Your task to perform on an android device: move an email to a new category in the gmail app Image 0: 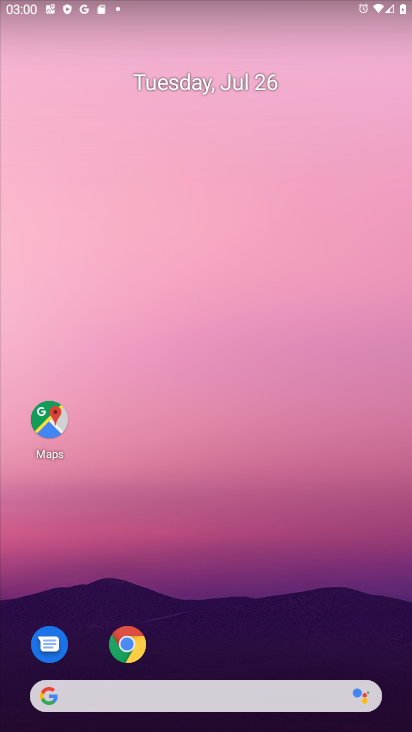
Step 0: drag from (252, 655) to (286, 268)
Your task to perform on an android device: move an email to a new category in the gmail app Image 1: 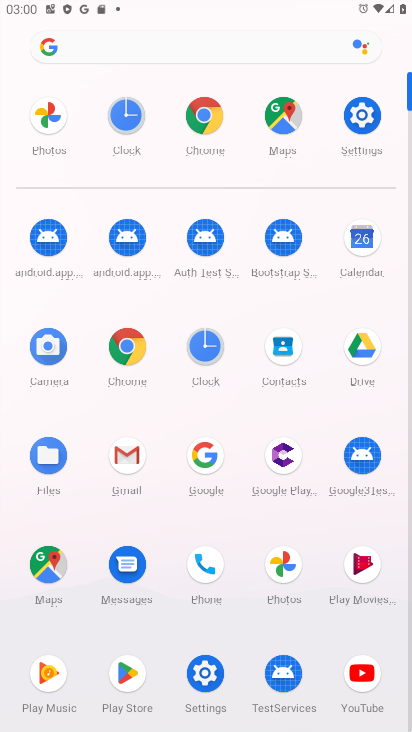
Step 1: click (117, 444)
Your task to perform on an android device: move an email to a new category in the gmail app Image 2: 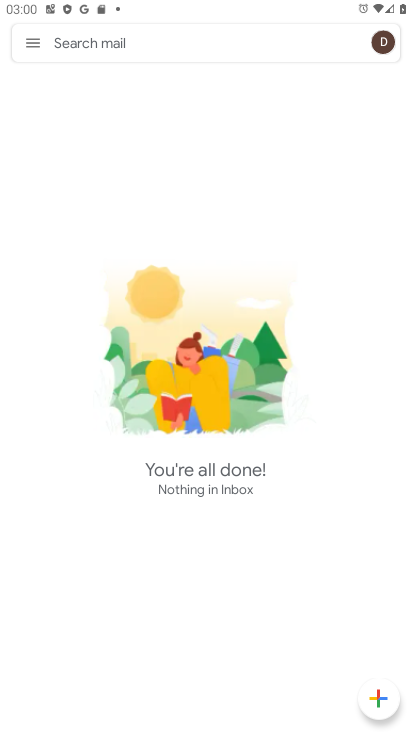
Step 2: task complete